Your task to perform on an android device: Search for the best Nike running shoes on Nike.com Image 0: 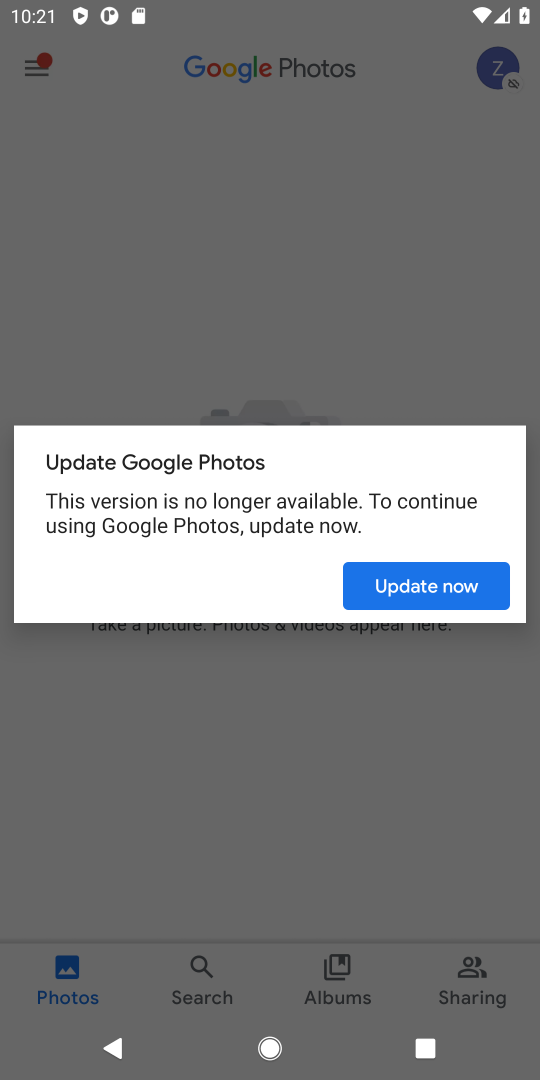
Step 0: press home button
Your task to perform on an android device: Search for the best Nike running shoes on Nike.com Image 1: 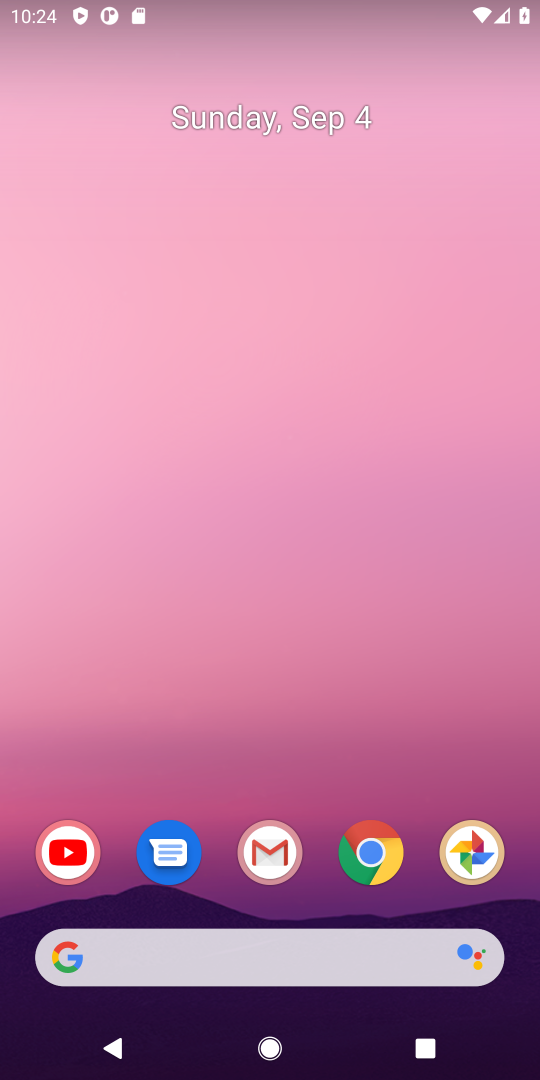
Step 1: drag from (434, 890) to (375, 10)
Your task to perform on an android device: Search for the best Nike running shoes on Nike.com Image 2: 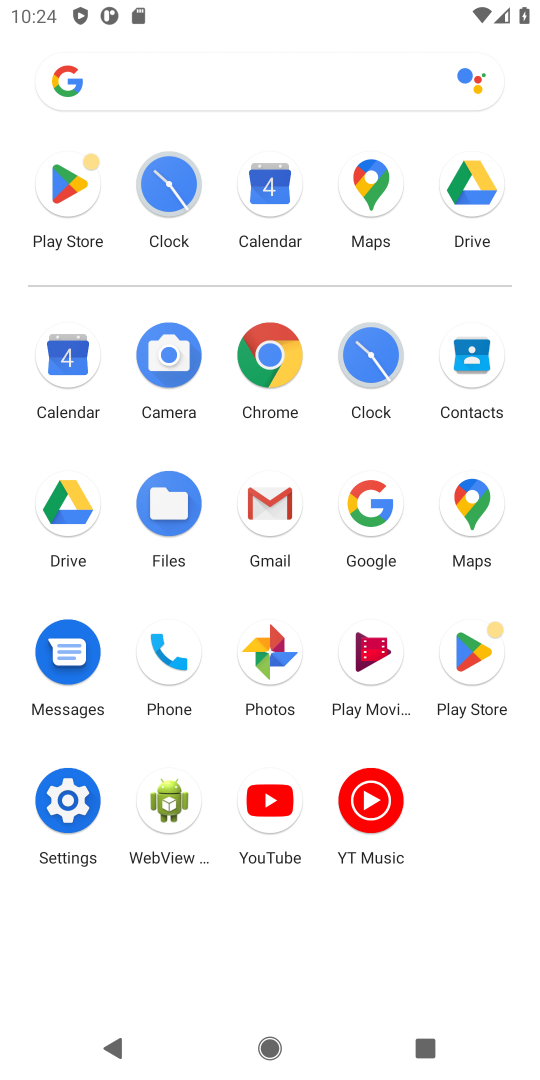
Step 2: click (388, 504)
Your task to perform on an android device: Search for the best Nike running shoes on Nike.com Image 3: 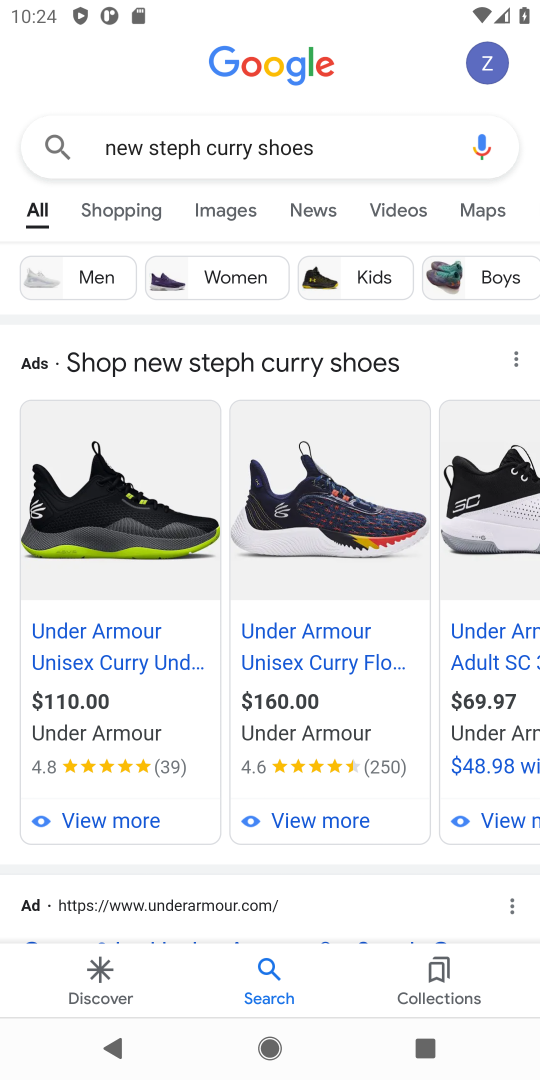
Step 3: press back button
Your task to perform on an android device: Search for the best Nike running shoes on Nike.com Image 4: 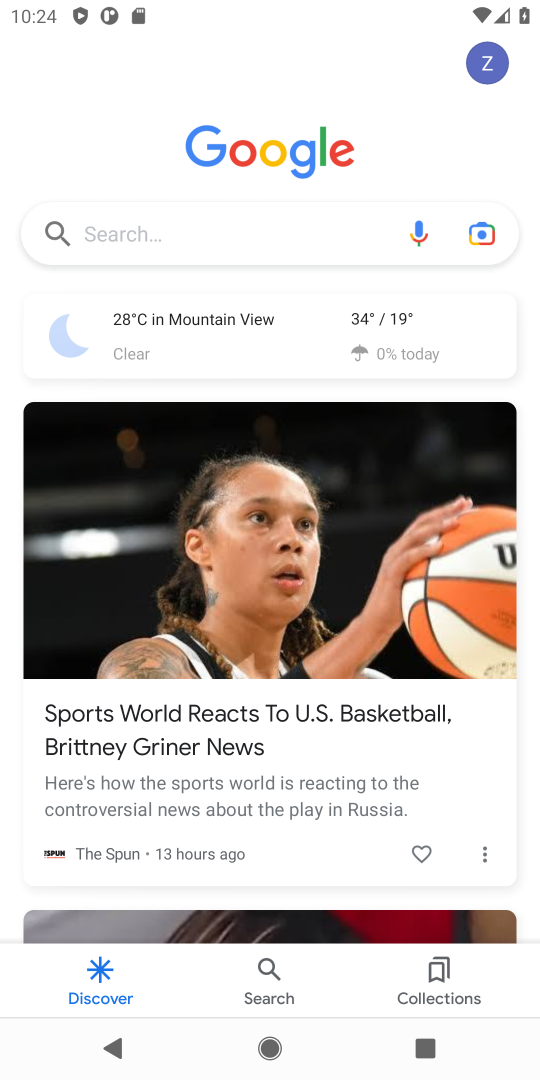
Step 4: click (148, 243)
Your task to perform on an android device: Search for the best Nike running shoes on Nike.com Image 5: 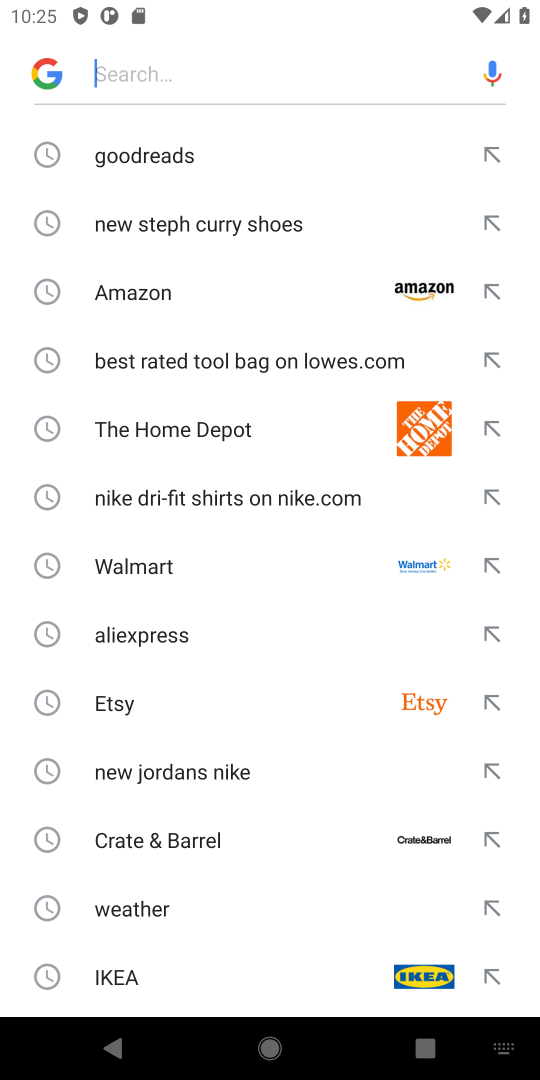
Step 5: type "Nike running shoes on Nike.com"
Your task to perform on an android device: Search for the best Nike running shoes on Nike.com Image 6: 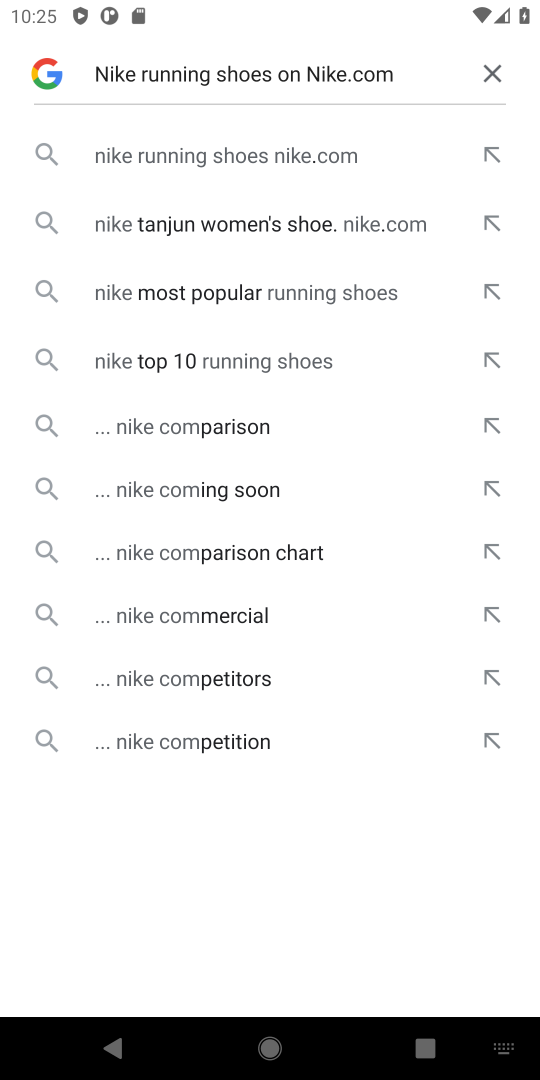
Step 6: click (218, 164)
Your task to perform on an android device: Search for the best Nike running shoes on Nike.com Image 7: 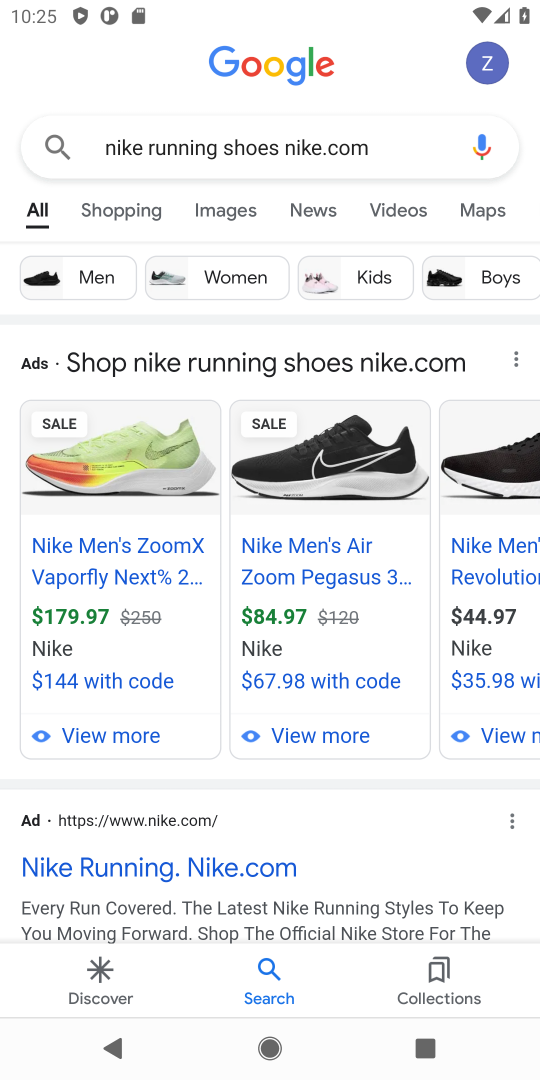
Step 7: task complete